Your task to perform on an android device: turn pop-ups on in chrome Image 0: 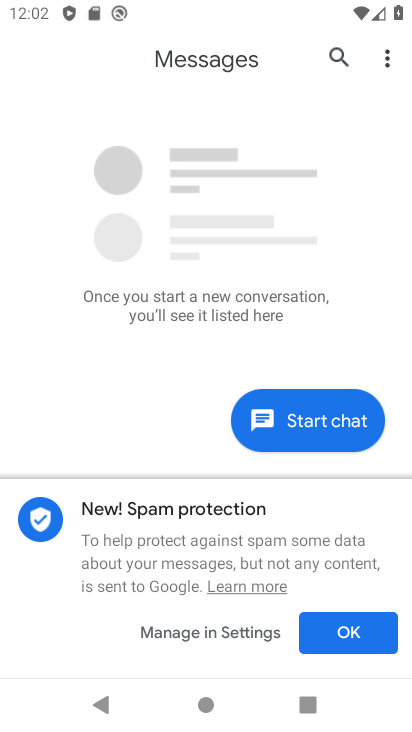
Step 0: press home button
Your task to perform on an android device: turn pop-ups on in chrome Image 1: 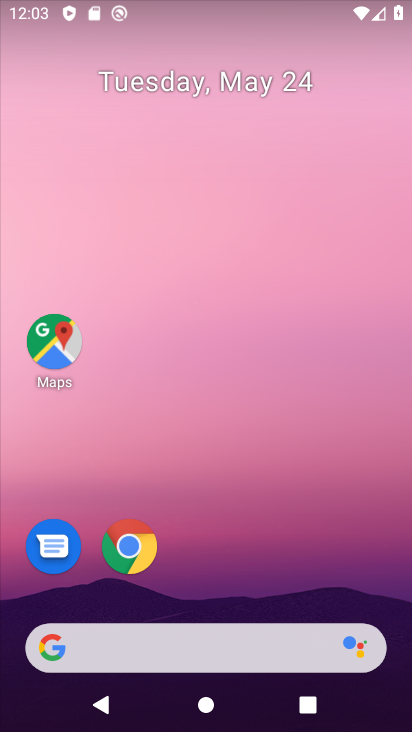
Step 1: drag from (160, 646) to (329, 126)
Your task to perform on an android device: turn pop-ups on in chrome Image 2: 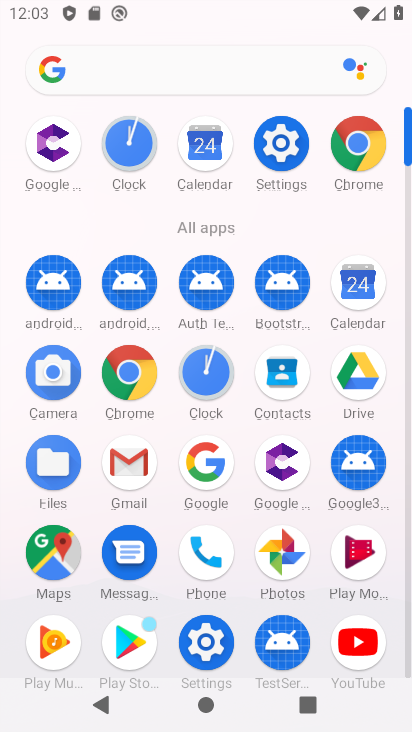
Step 2: click (105, 364)
Your task to perform on an android device: turn pop-ups on in chrome Image 3: 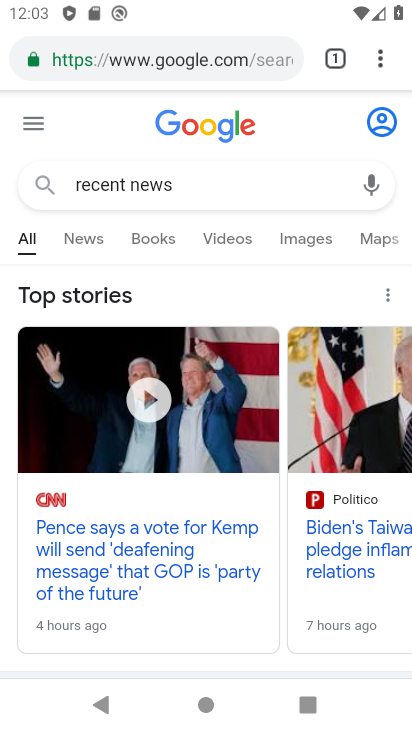
Step 3: drag from (379, 59) to (215, 580)
Your task to perform on an android device: turn pop-ups on in chrome Image 4: 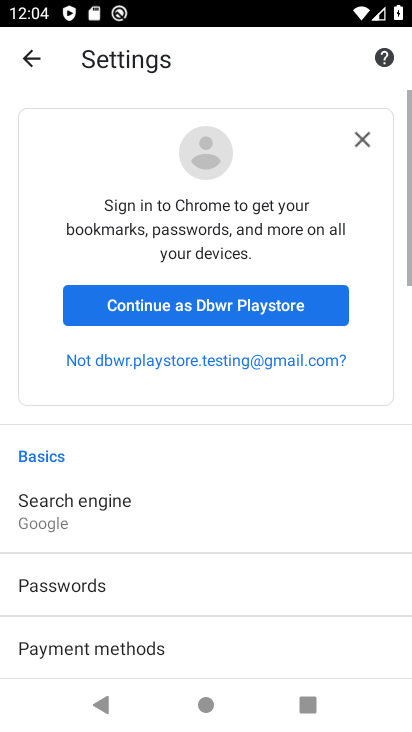
Step 4: drag from (239, 634) to (301, 33)
Your task to perform on an android device: turn pop-ups on in chrome Image 5: 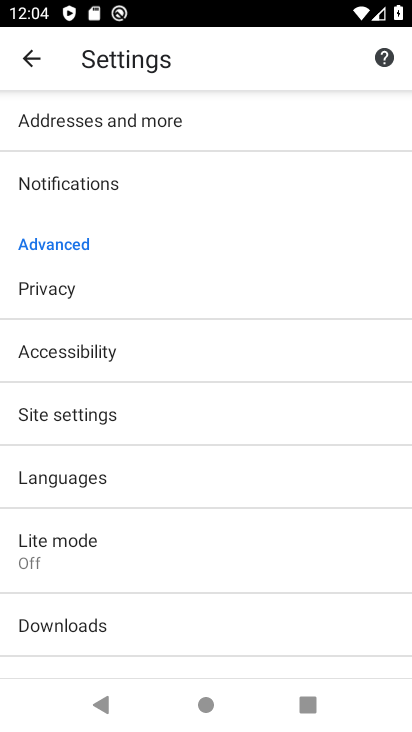
Step 5: click (134, 413)
Your task to perform on an android device: turn pop-ups on in chrome Image 6: 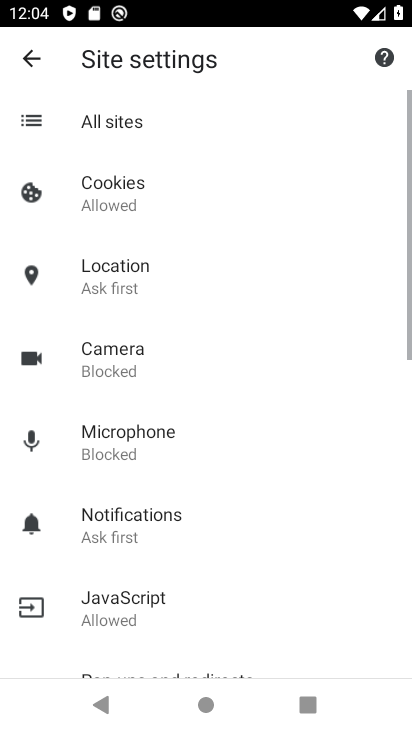
Step 6: drag from (231, 603) to (260, 58)
Your task to perform on an android device: turn pop-ups on in chrome Image 7: 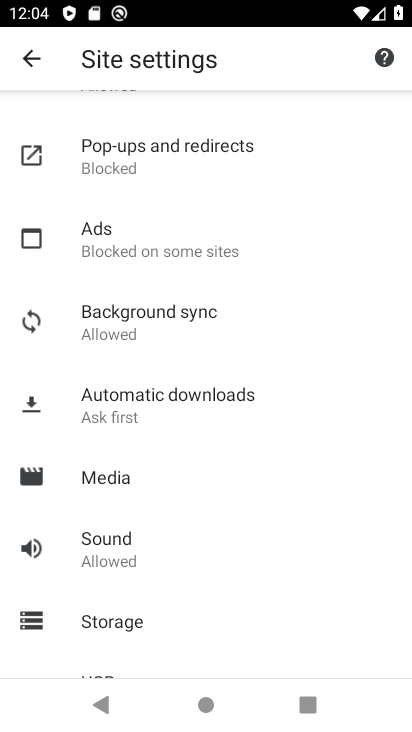
Step 7: click (173, 141)
Your task to perform on an android device: turn pop-ups on in chrome Image 8: 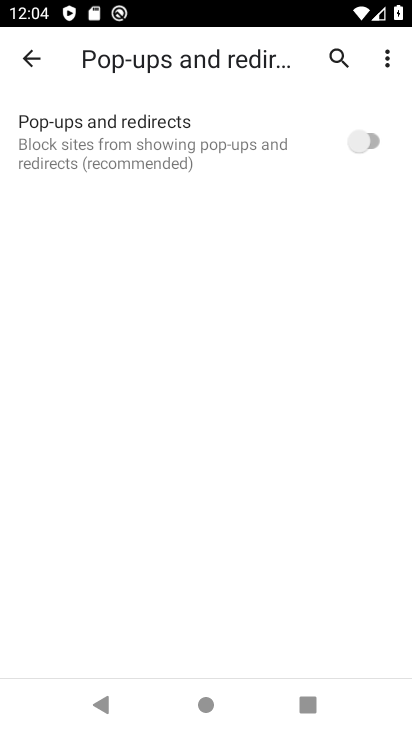
Step 8: click (375, 137)
Your task to perform on an android device: turn pop-ups on in chrome Image 9: 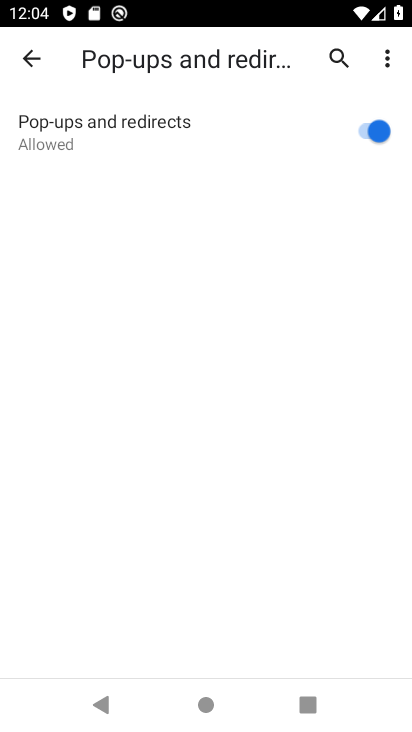
Step 9: task complete